Your task to perform on an android device: change the clock display to show seconds Image 0: 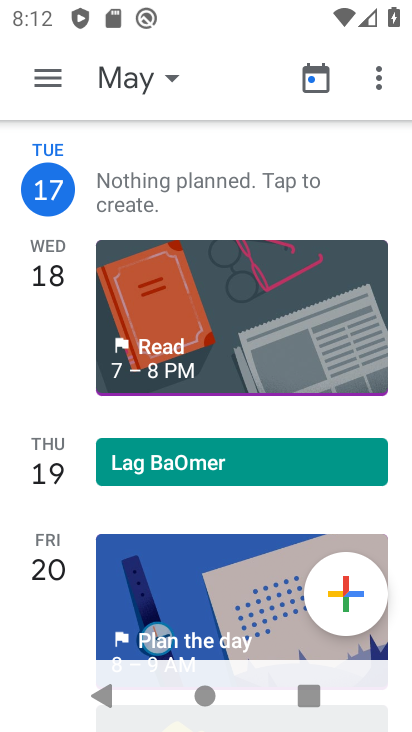
Step 0: press home button
Your task to perform on an android device: change the clock display to show seconds Image 1: 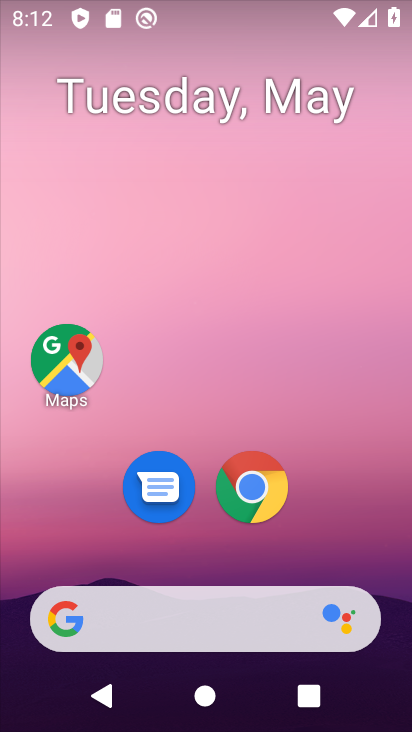
Step 1: drag from (177, 723) to (181, 169)
Your task to perform on an android device: change the clock display to show seconds Image 2: 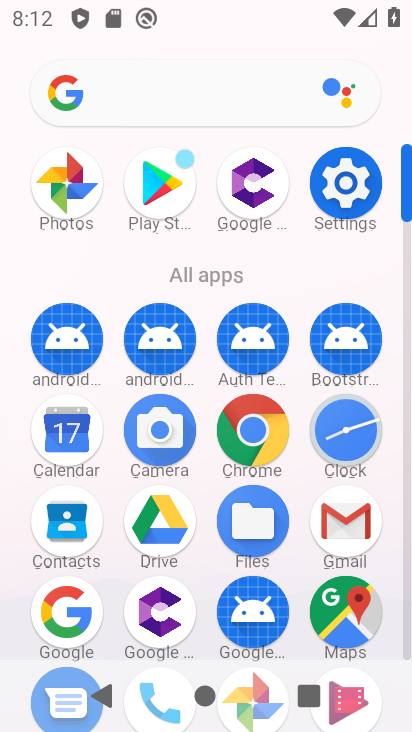
Step 2: click (358, 429)
Your task to perform on an android device: change the clock display to show seconds Image 3: 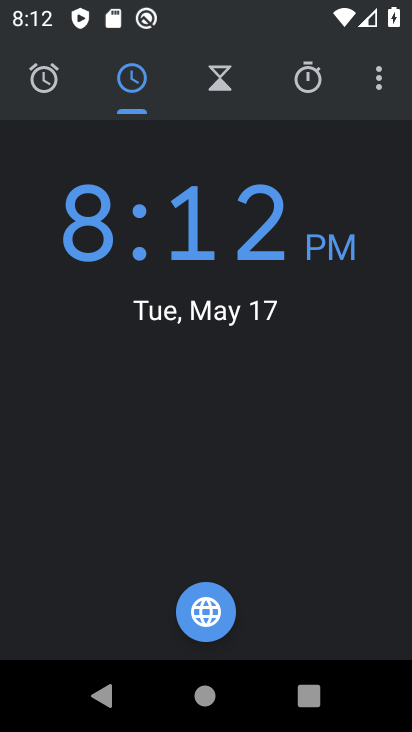
Step 3: click (381, 86)
Your task to perform on an android device: change the clock display to show seconds Image 4: 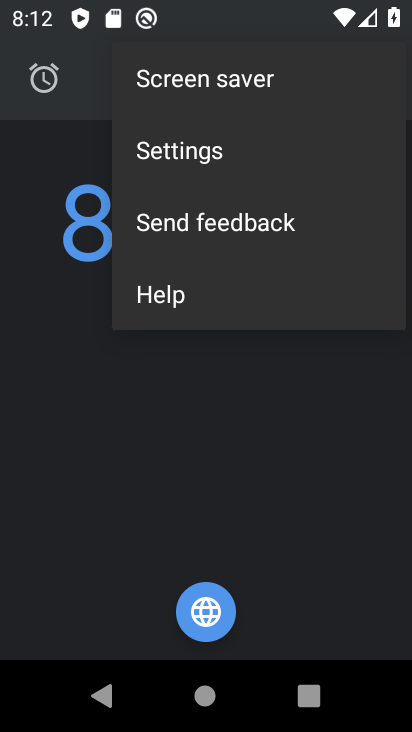
Step 4: click (215, 143)
Your task to perform on an android device: change the clock display to show seconds Image 5: 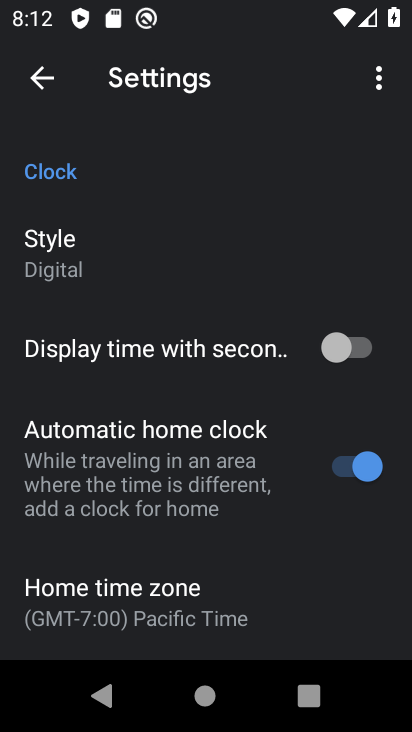
Step 5: click (361, 349)
Your task to perform on an android device: change the clock display to show seconds Image 6: 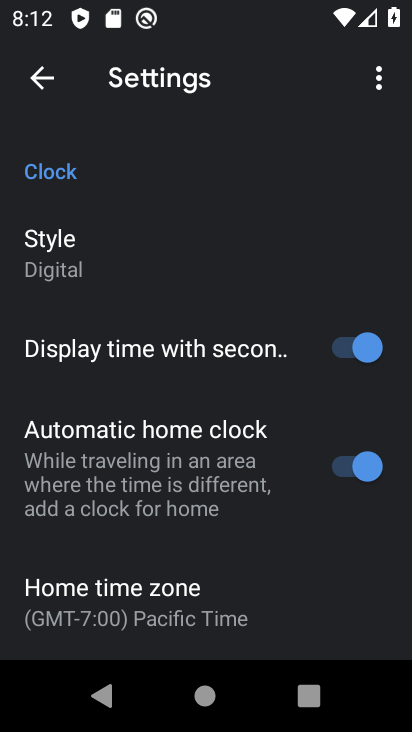
Step 6: task complete